Your task to perform on an android device: allow cookies in the chrome app Image 0: 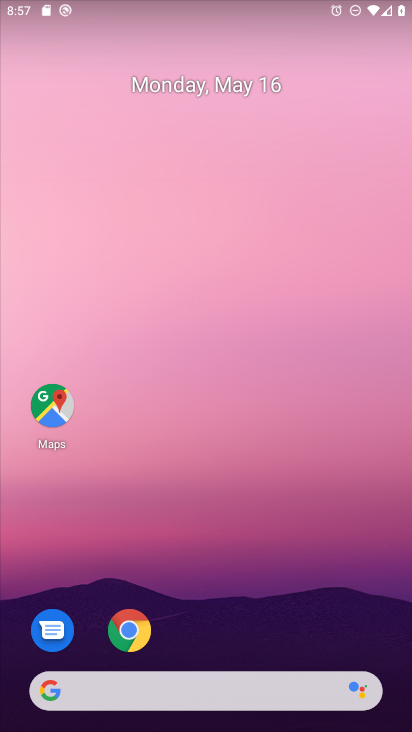
Step 0: click (126, 630)
Your task to perform on an android device: allow cookies in the chrome app Image 1: 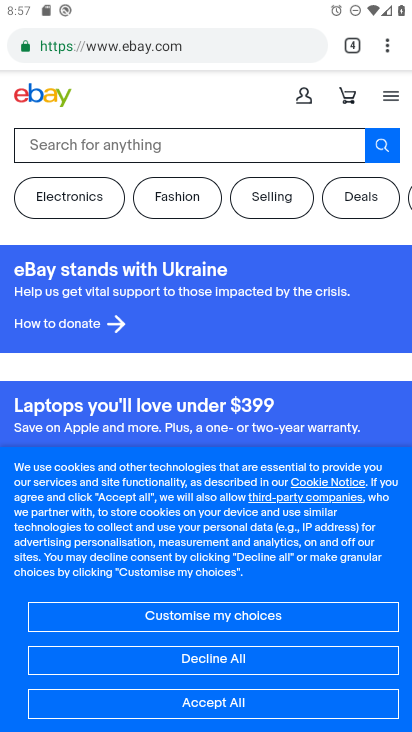
Step 1: click (385, 26)
Your task to perform on an android device: allow cookies in the chrome app Image 2: 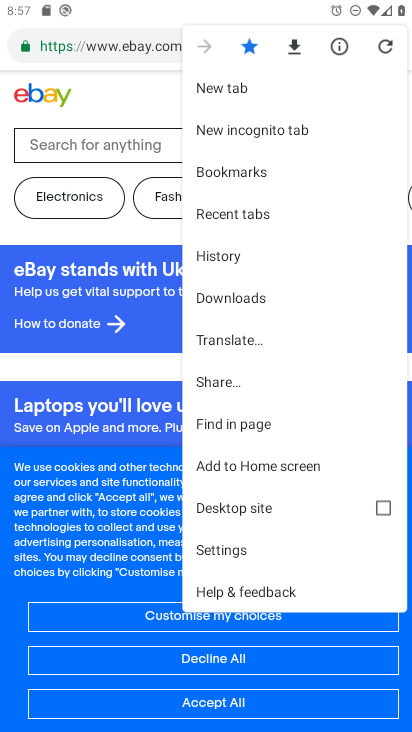
Step 2: click (209, 542)
Your task to perform on an android device: allow cookies in the chrome app Image 3: 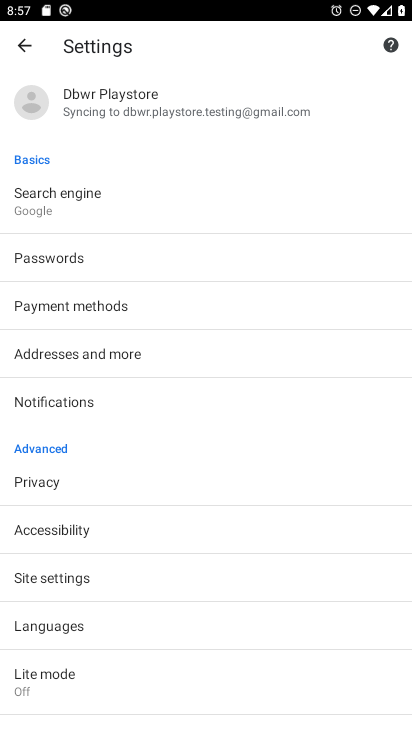
Step 3: click (60, 575)
Your task to perform on an android device: allow cookies in the chrome app Image 4: 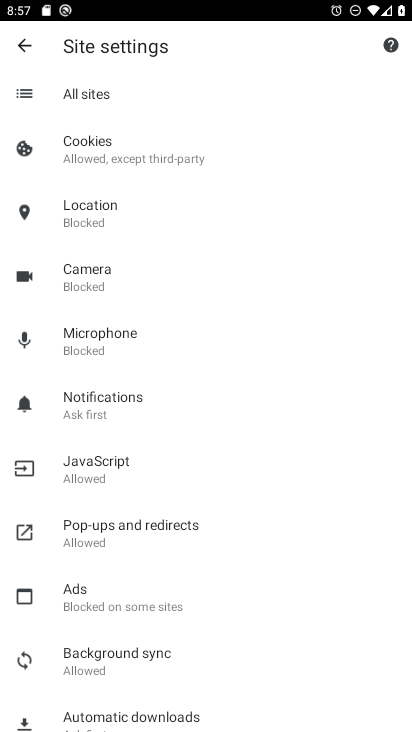
Step 4: click (128, 133)
Your task to perform on an android device: allow cookies in the chrome app Image 5: 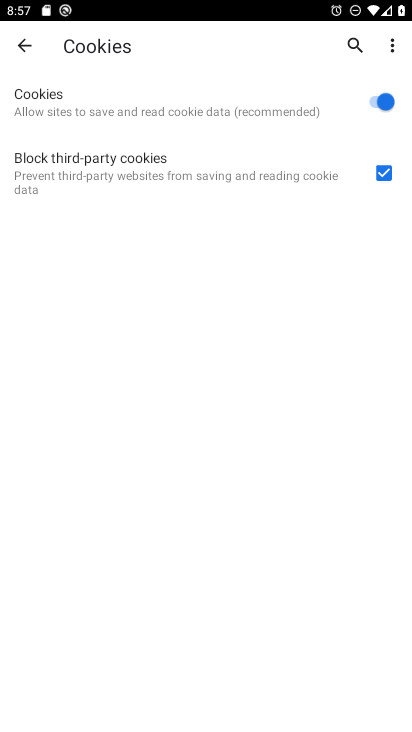
Step 5: task complete